Your task to perform on an android device: What's the news in Indonesia? Image 0: 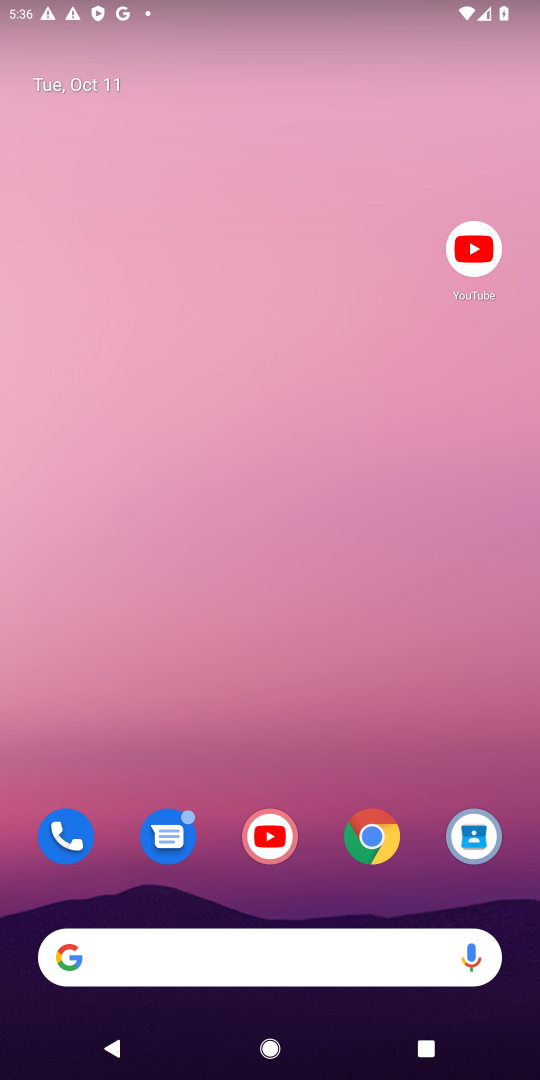
Step 0: click (366, 847)
Your task to perform on an android device: What's the news in Indonesia? Image 1: 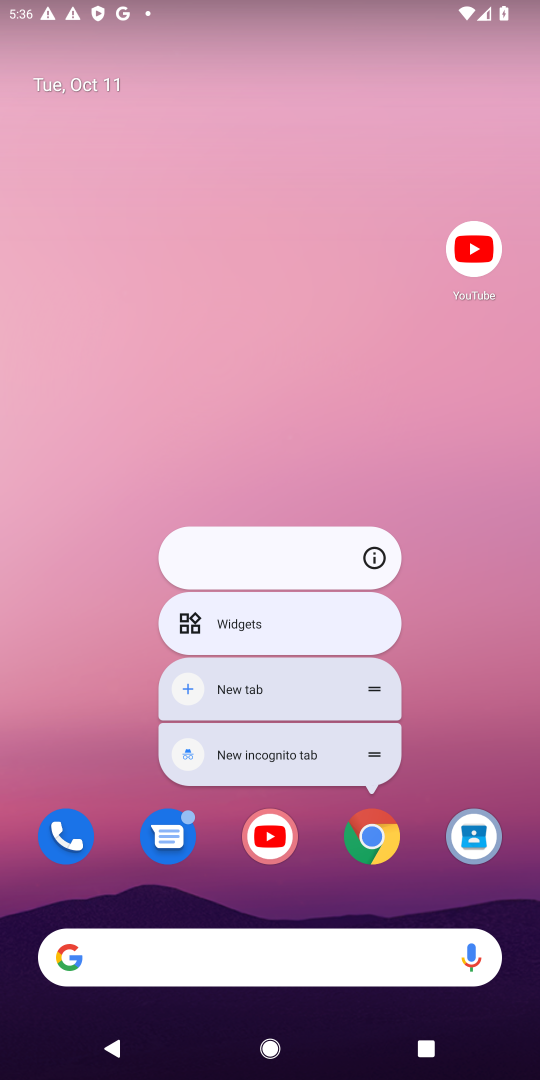
Step 1: click (381, 826)
Your task to perform on an android device: What's the news in Indonesia? Image 2: 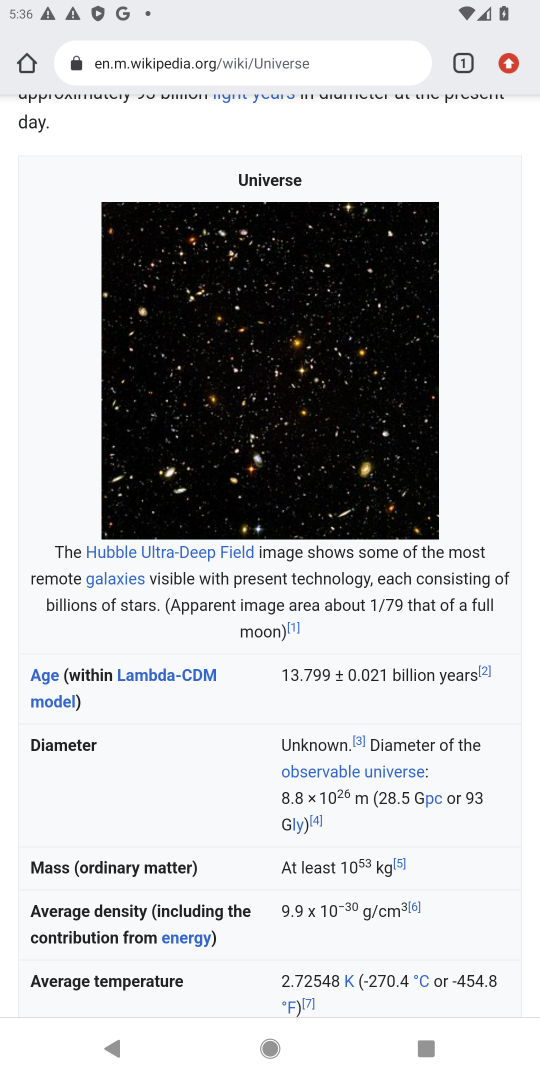
Step 2: click (271, 61)
Your task to perform on an android device: What's the news in Indonesia? Image 3: 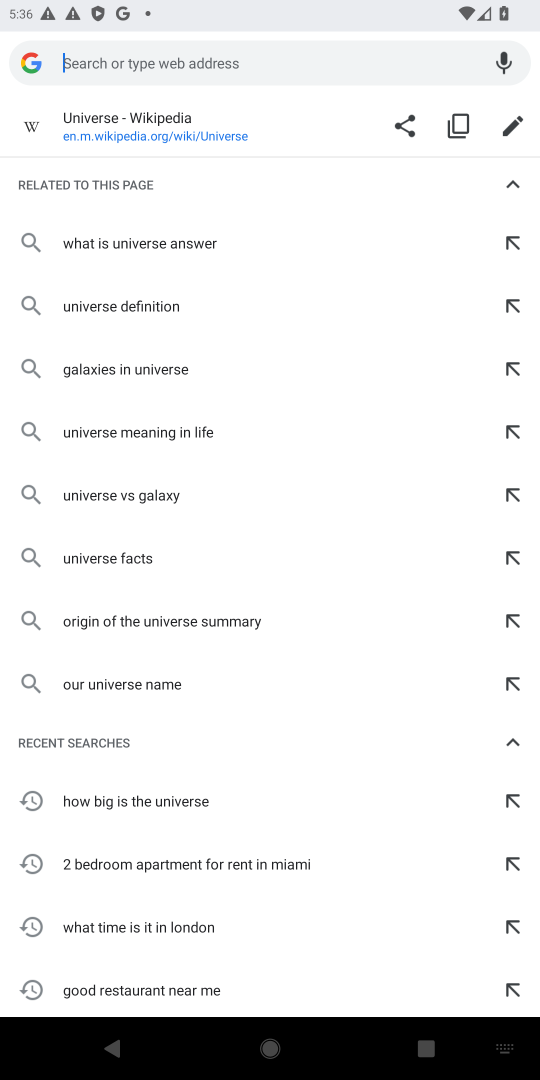
Step 3: type "the news in Indonesia"
Your task to perform on an android device: What's the news in Indonesia? Image 4: 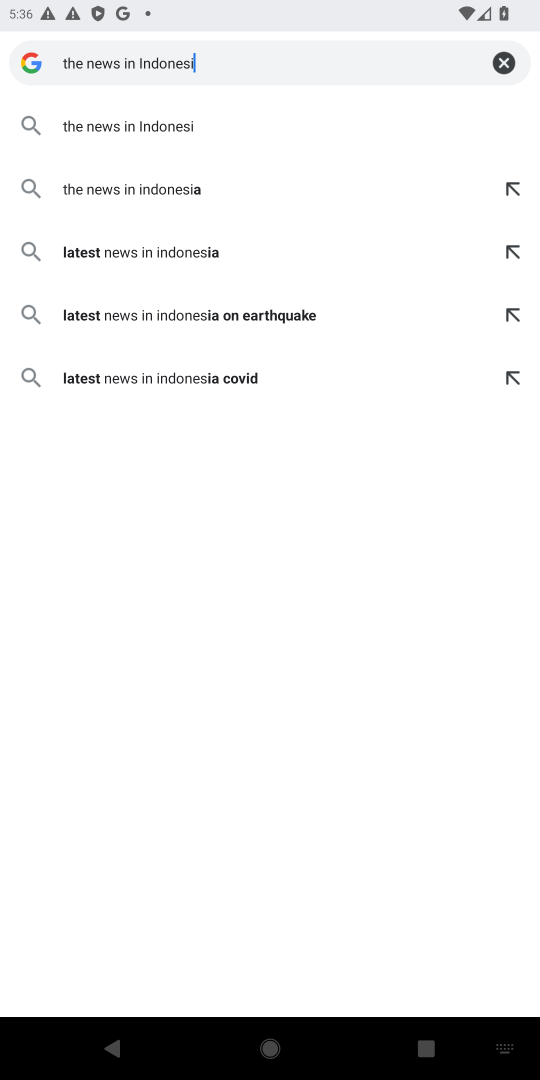
Step 4: press enter
Your task to perform on an android device: What's the news in Indonesia? Image 5: 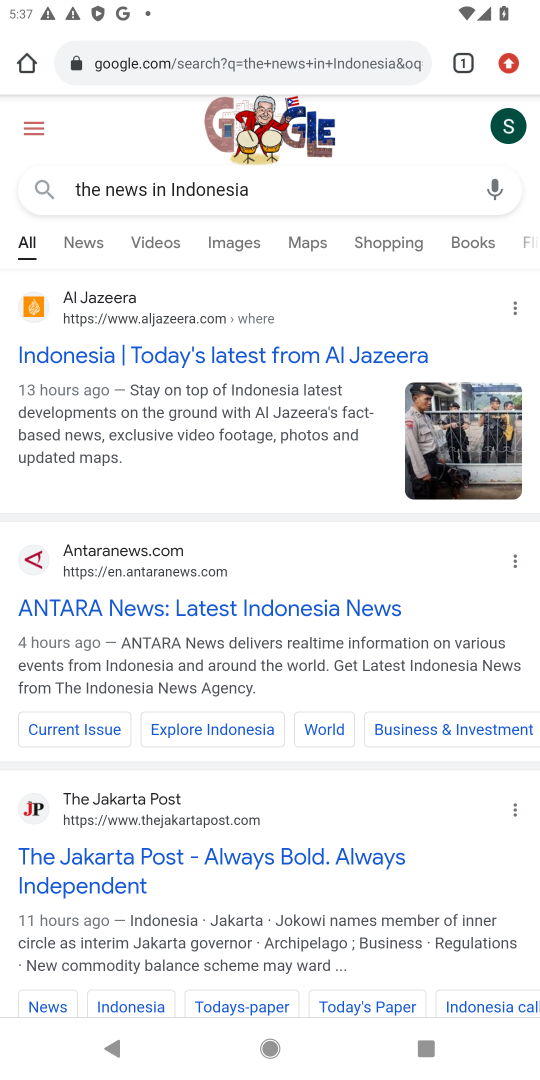
Step 5: click (82, 238)
Your task to perform on an android device: What's the news in Indonesia? Image 6: 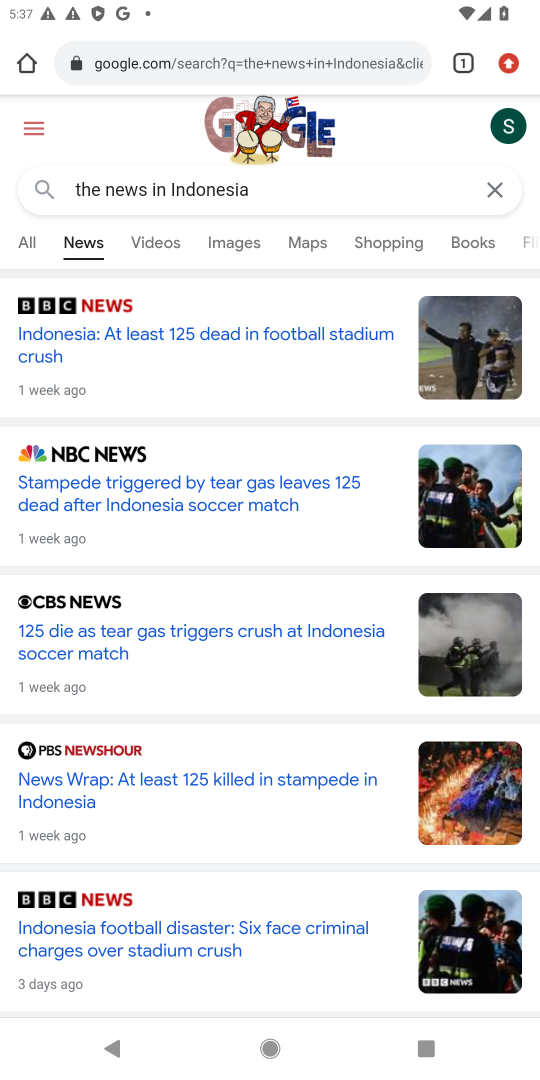
Step 6: task complete